Your task to perform on an android device: open sync settings in chrome Image 0: 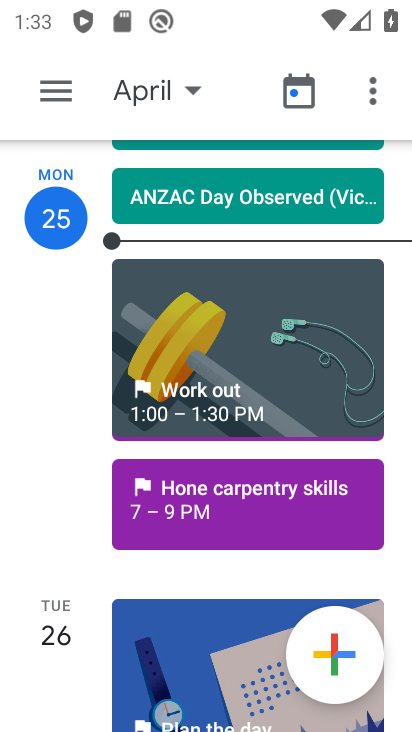
Step 0: press home button
Your task to perform on an android device: open sync settings in chrome Image 1: 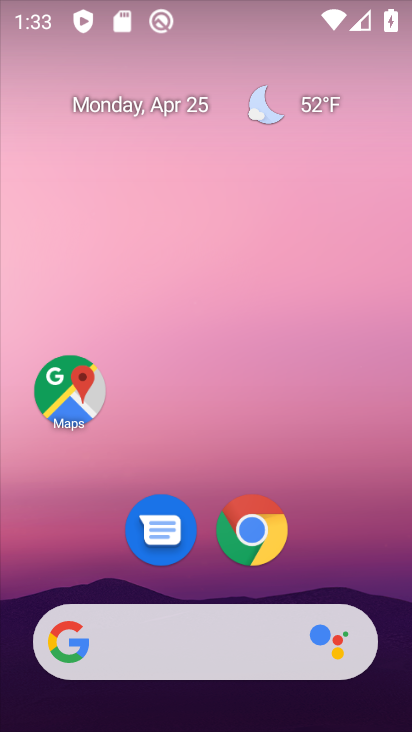
Step 1: drag from (300, 553) to (331, 114)
Your task to perform on an android device: open sync settings in chrome Image 2: 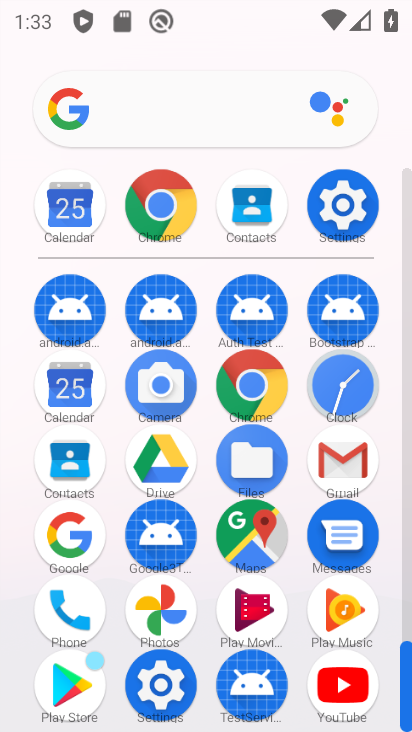
Step 2: click (239, 368)
Your task to perform on an android device: open sync settings in chrome Image 3: 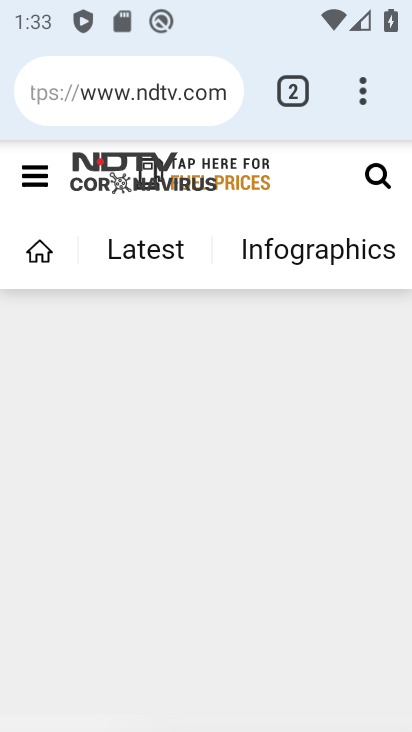
Step 3: click (355, 102)
Your task to perform on an android device: open sync settings in chrome Image 4: 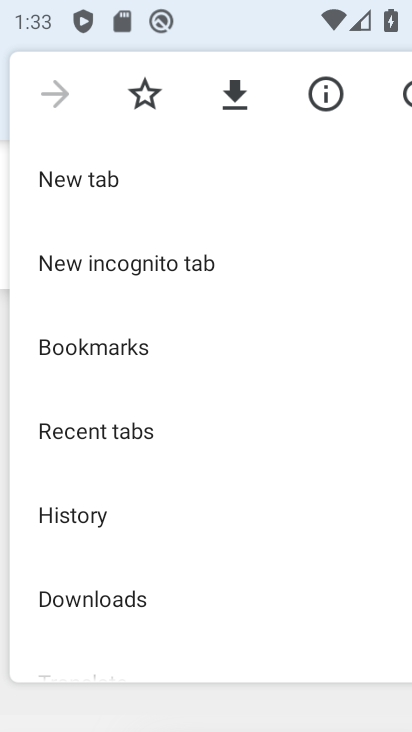
Step 4: drag from (137, 615) to (153, 335)
Your task to perform on an android device: open sync settings in chrome Image 5: 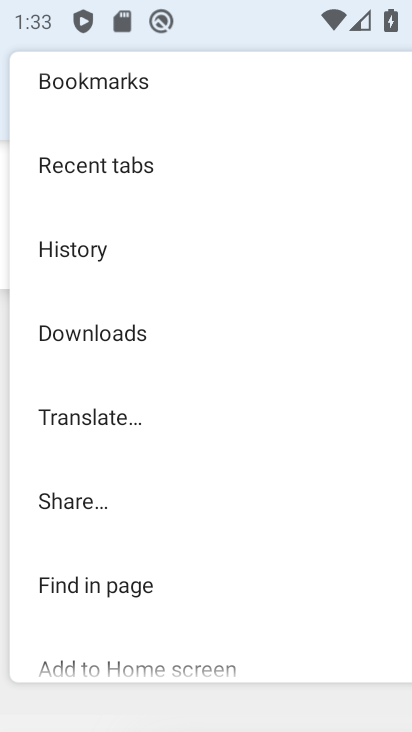
Step 5: drag from (109, 604) to (117, 304)
Your task to perform on an android device: open sync settings in chrome Image 6: 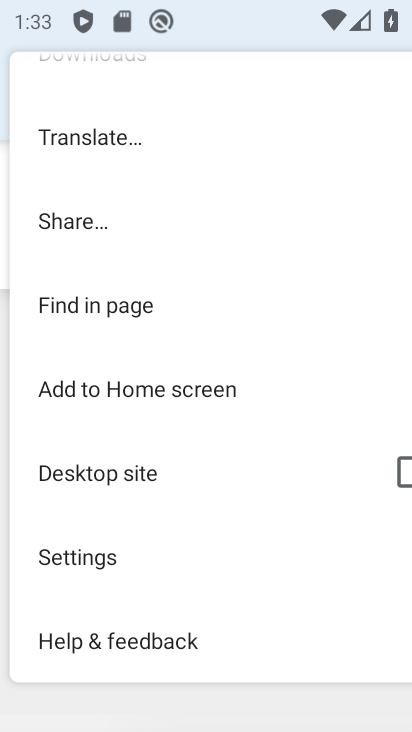
Step 6: click (81, 596)
Your task to perform on an android device: open sync settings in chrome Image 7: 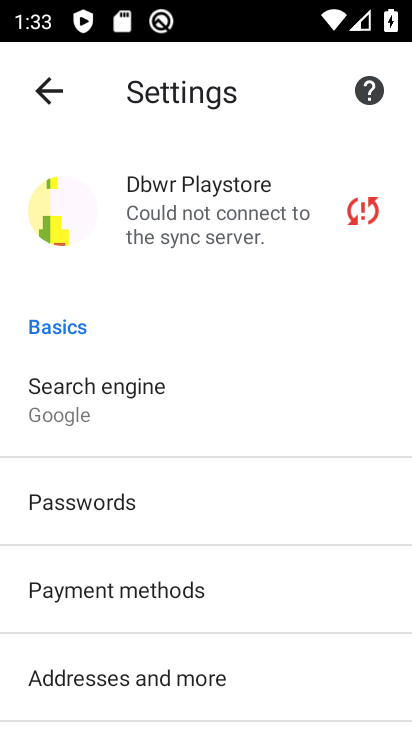
Step 7: drag from (236, 624) to (221, 353)
Your task to perform on an android device: open sync settings in chrome Image 8: 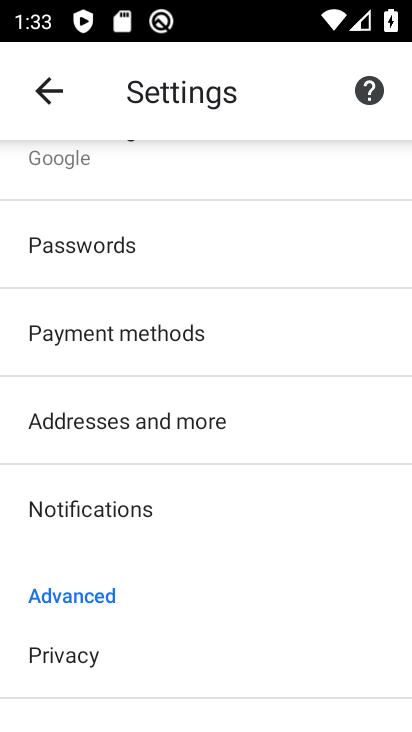
Step 8: drag from (198, 610) to (190, 296)
Your task to perform on an android device: open sync settings in chrome Image 9: 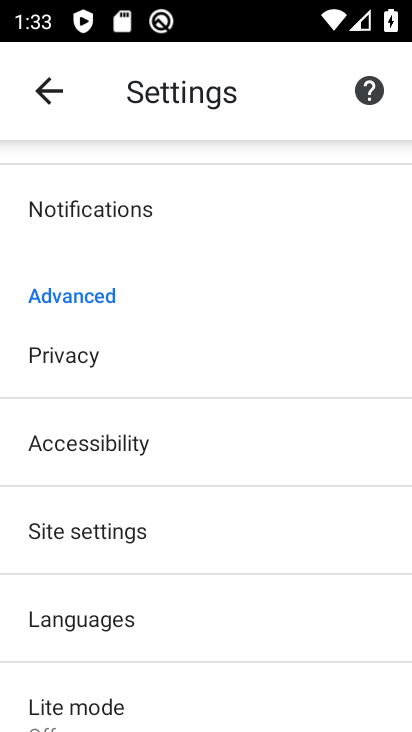
Step 9: click (64, 547)
Your task to perform on an android device: open sync settings in chrome Image 10: 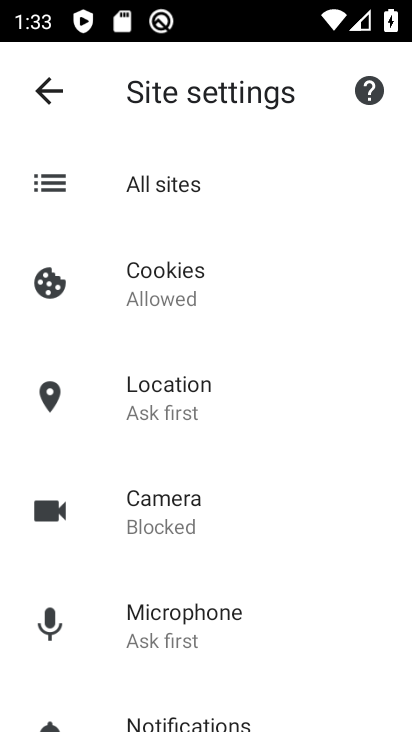
Step 10: drag from (244, 538) to (263, 342)
Your task to perform on an android device: open sync settings in chrome Image 11: 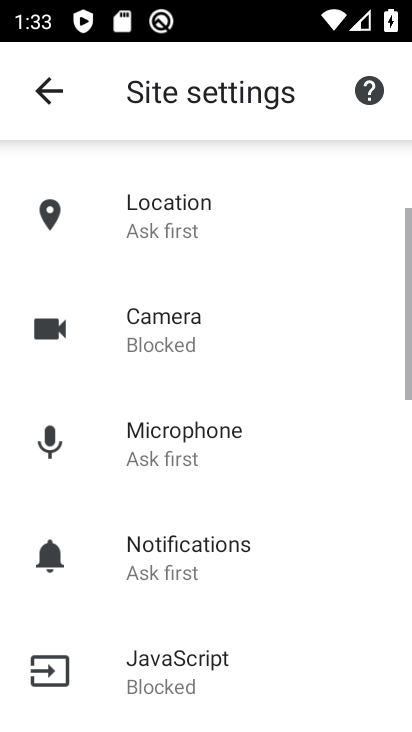
Step 11: drag from (232, 578) to (273, 324)
Your task to perform on an android device: open sync settings in chrome Image 12: 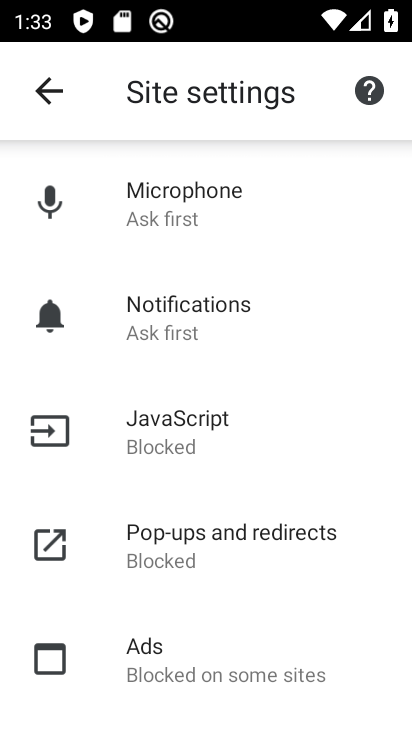
Step 12: drag from (245, 569) to (271, 323)
Your task to perform on an android device: open sync settings in chrome Image 13: 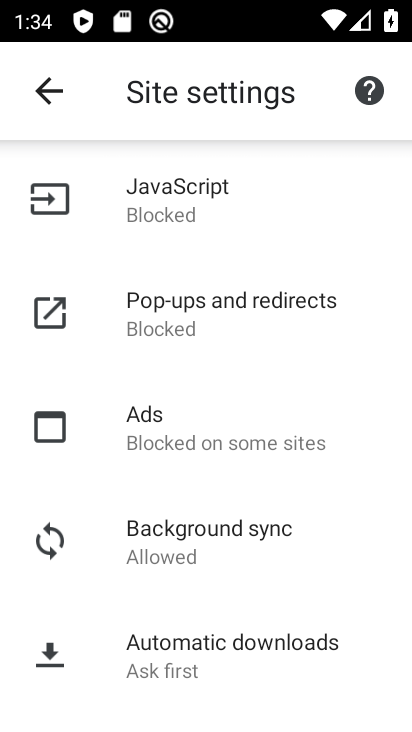
Step 13: click (132, 556)
Your task to perform on an android device: open sync settings in chrome Image 14: 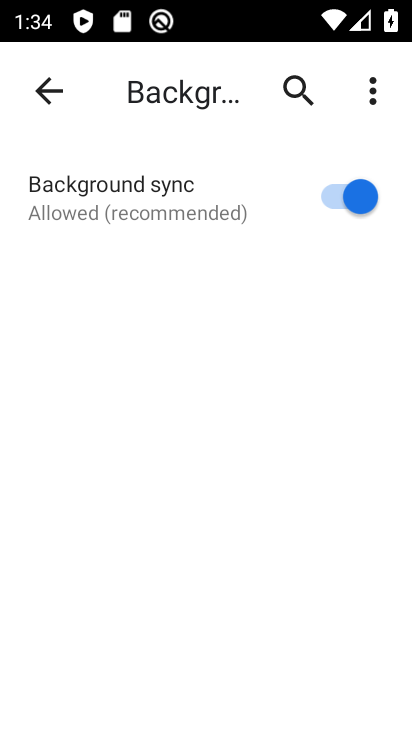
Step 14: task complete